Your task to perform on an android device: move an email to a new category in the gmail app Image 0: 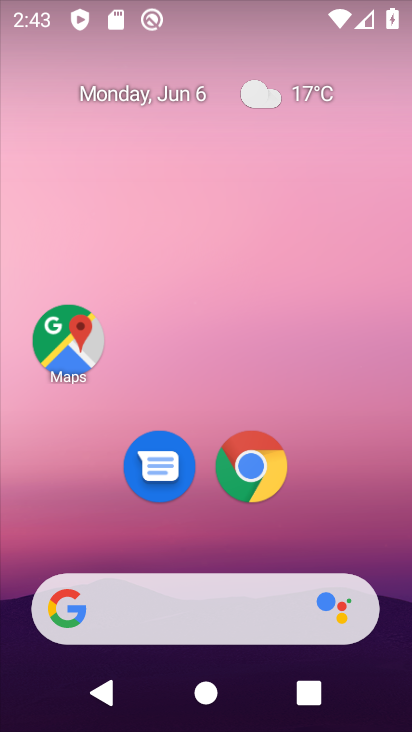
Step 0: press home button
Your task to perform on an android device: move an email to a new category in the gmail app Image 1: 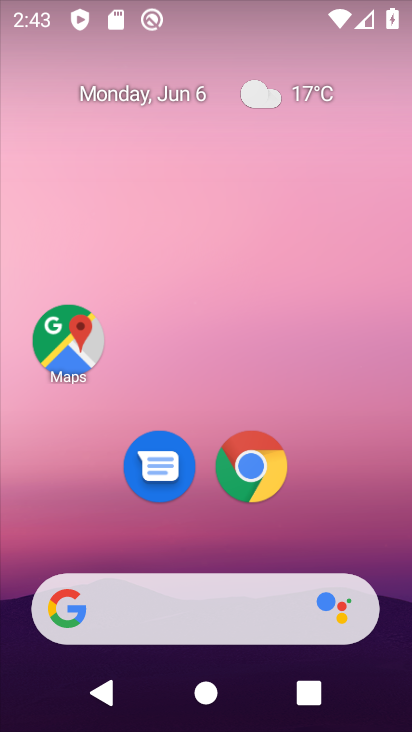
Step 1: drag from (330, 400) to (192, 9)
Your task to perform on an android device: move an email to a new category in the gmail app Image 2: 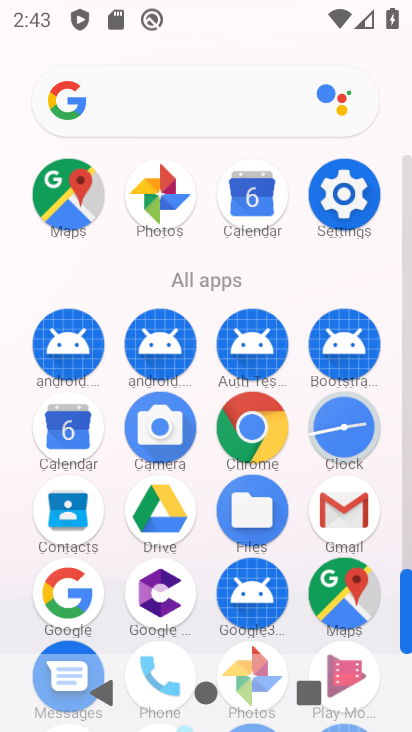
Step 2: click (355, 487)
Your task to perform on an android device: move an email to a new category in the gmail app Image 3: 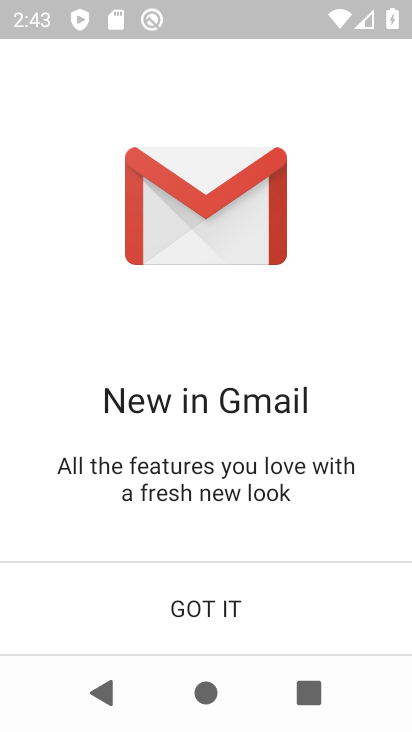
Step 3: click (234, 602)
Your task to perform on an android device: move an email to a new category in the gmail app Image 4: 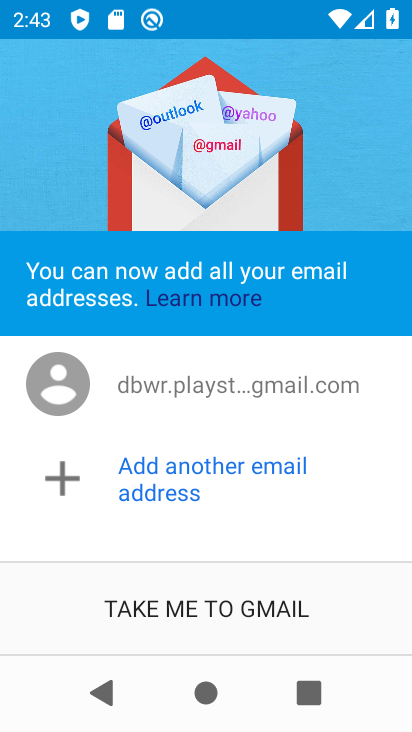
Step 4: click (270, 610)
Your task to perform on an android device: move an email to a new category in the gmail app Image 5: 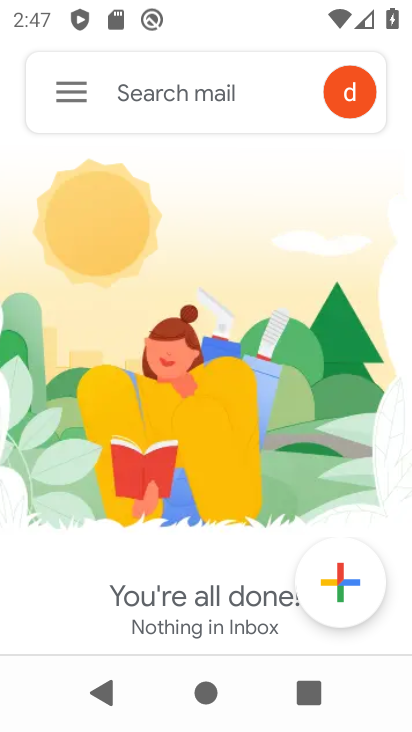
Step 5: task complete